Your task to perform on an android device: uninstall "Fetch Rewards" Image 0: 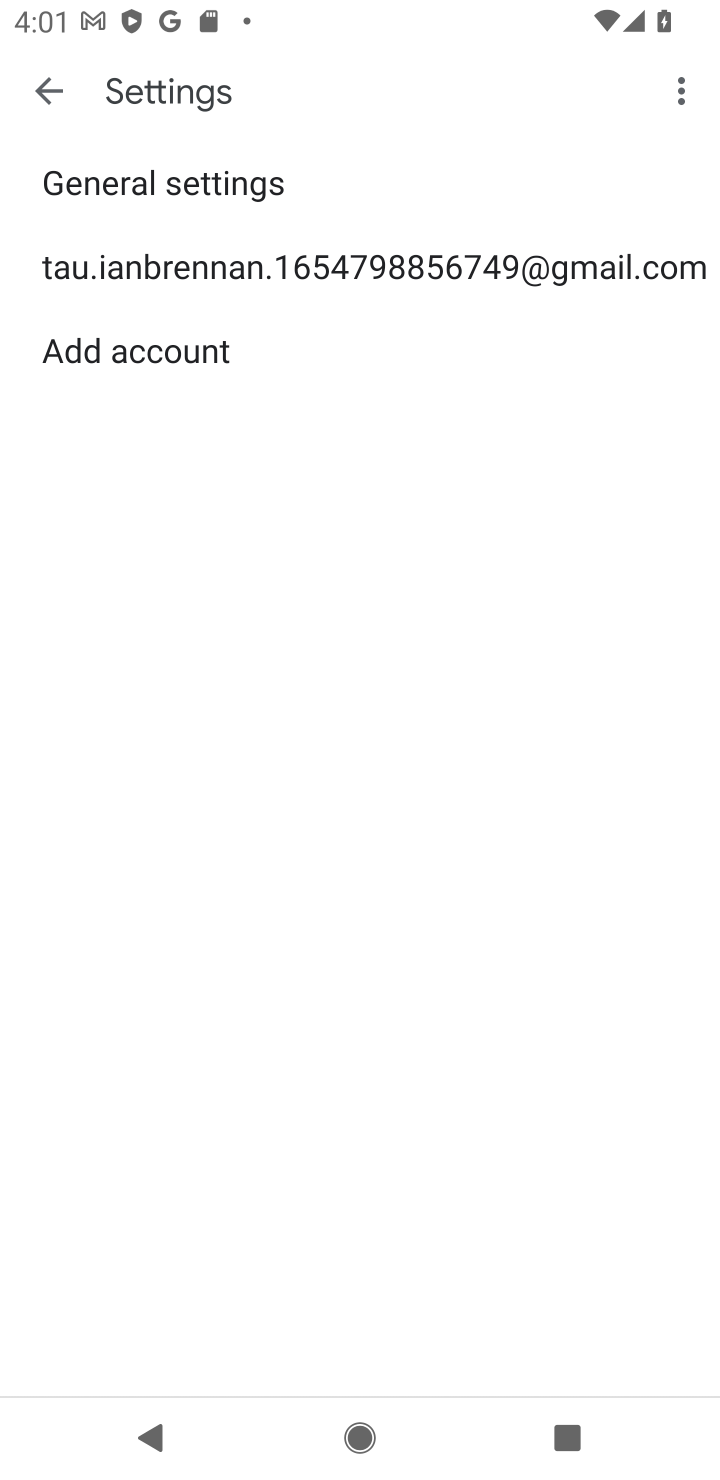
Step 0: press home button
Your task to perform on an android device: uninstall "Fetch Rewards" Image 1: 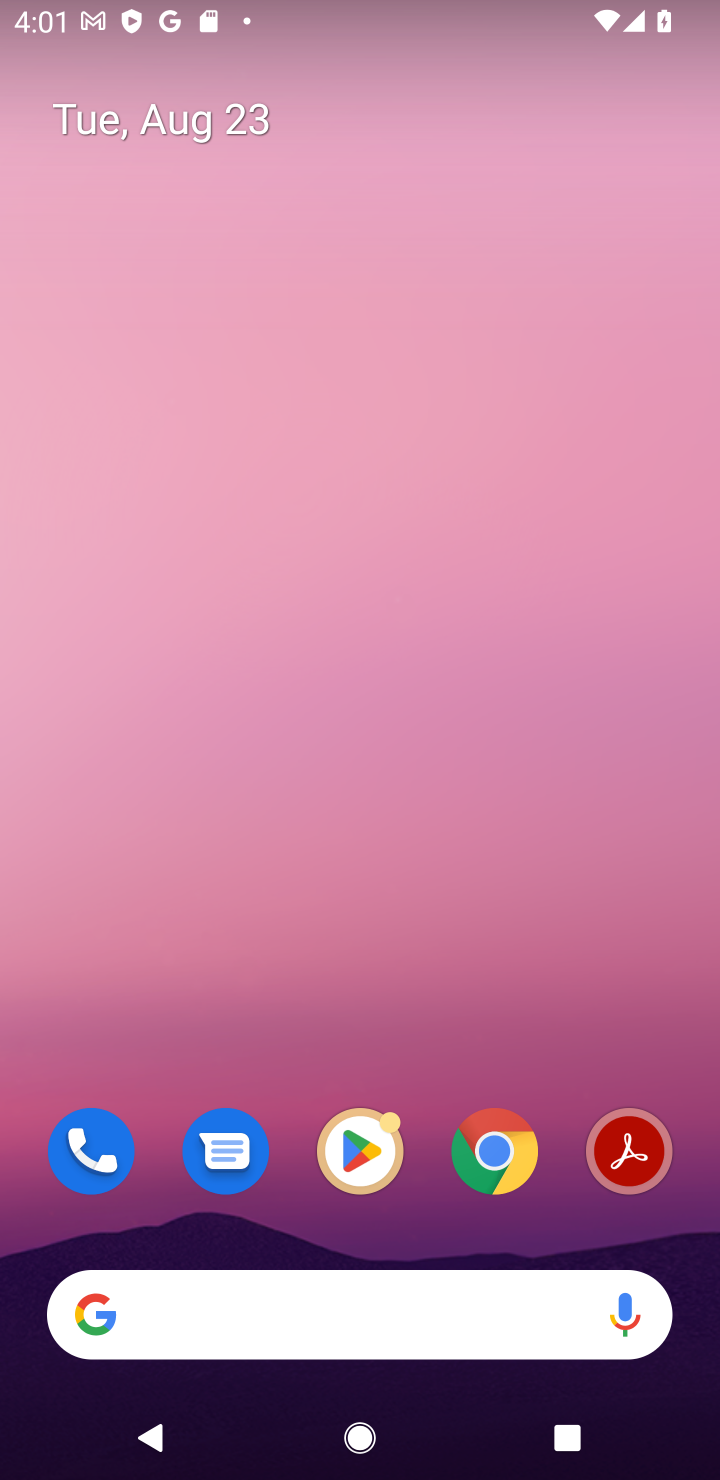
Step 1: click (358, 1144)
Your task to perform on an android device: uninstall "Fetch Rewards" Image 2: 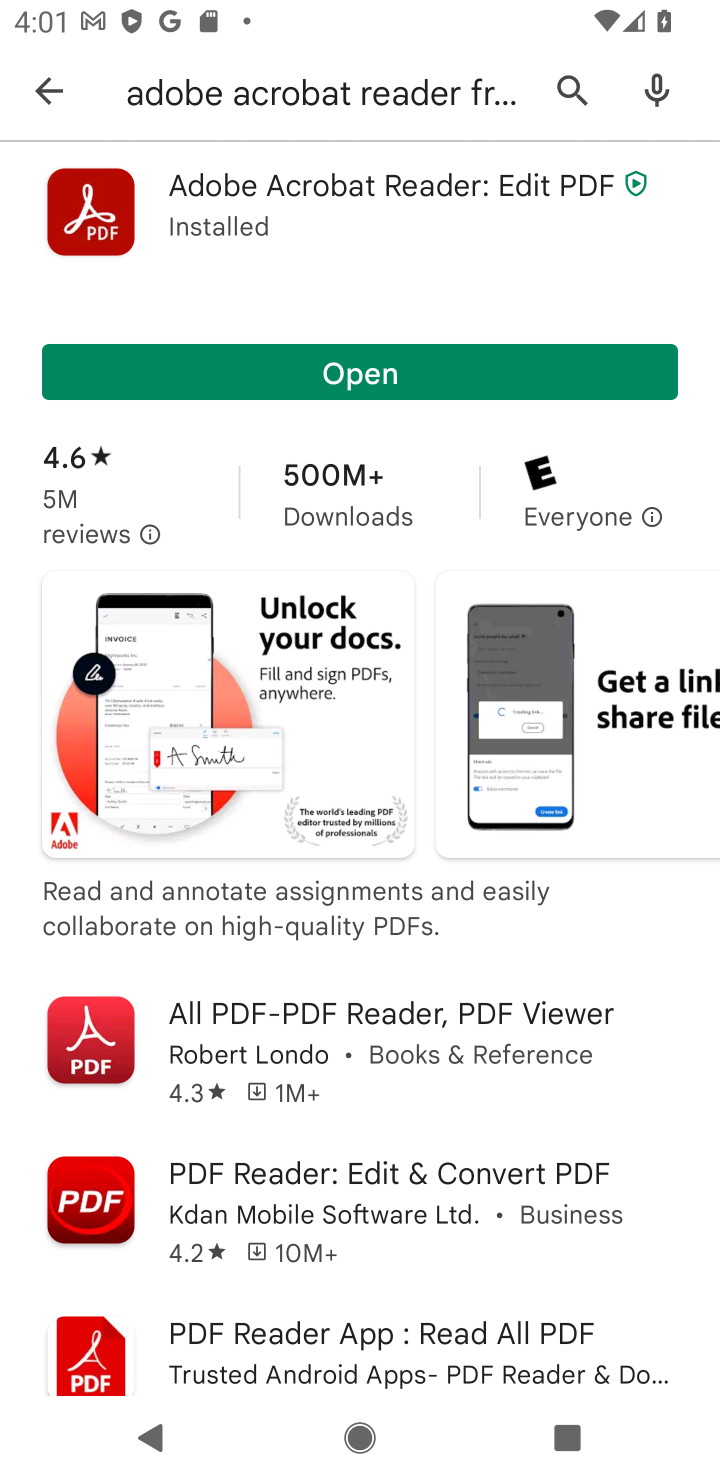
Step 2: click (562, 93)
Your task to perform on an android device: uninstall "Fetch Rewards" Image 3: 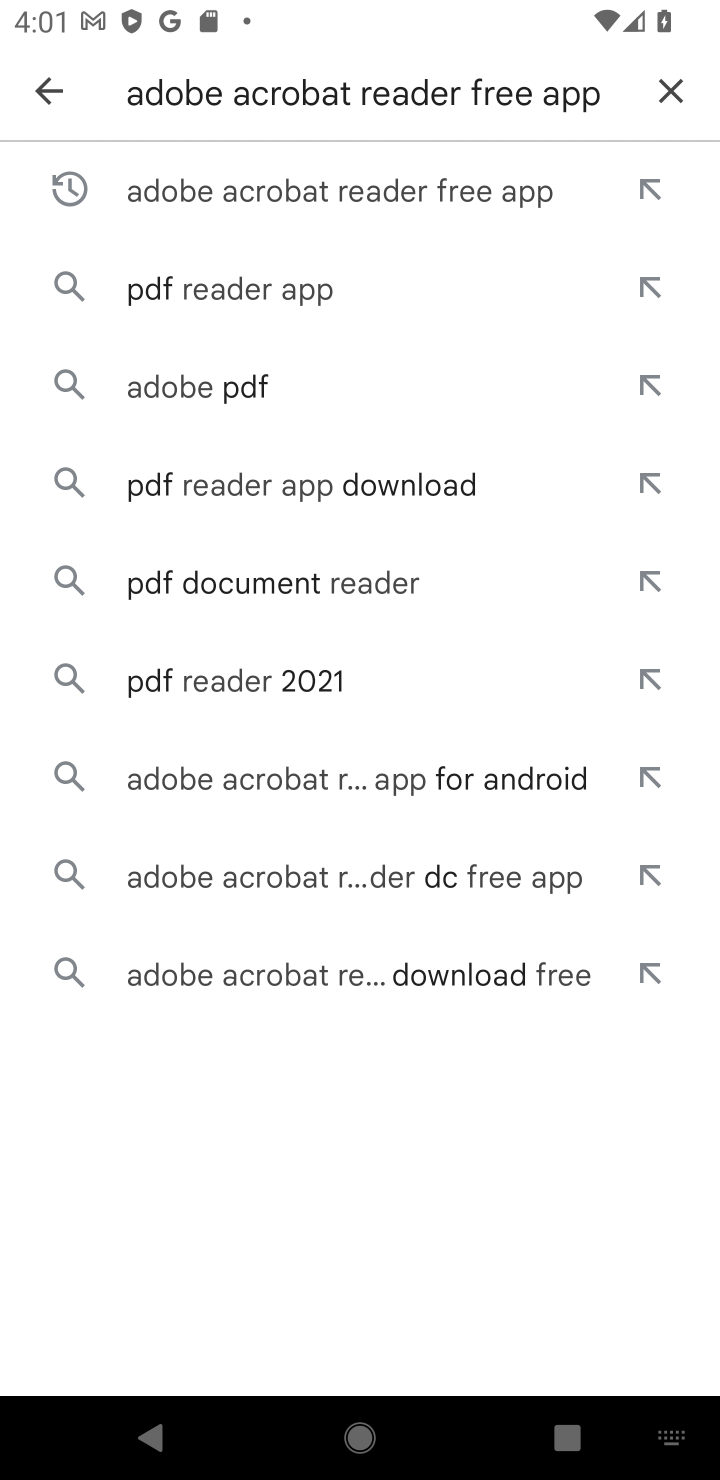
Step 3: click (671, 89)
Your task to perform on an android device: uninstall "Fetch Rewards" Image 4: 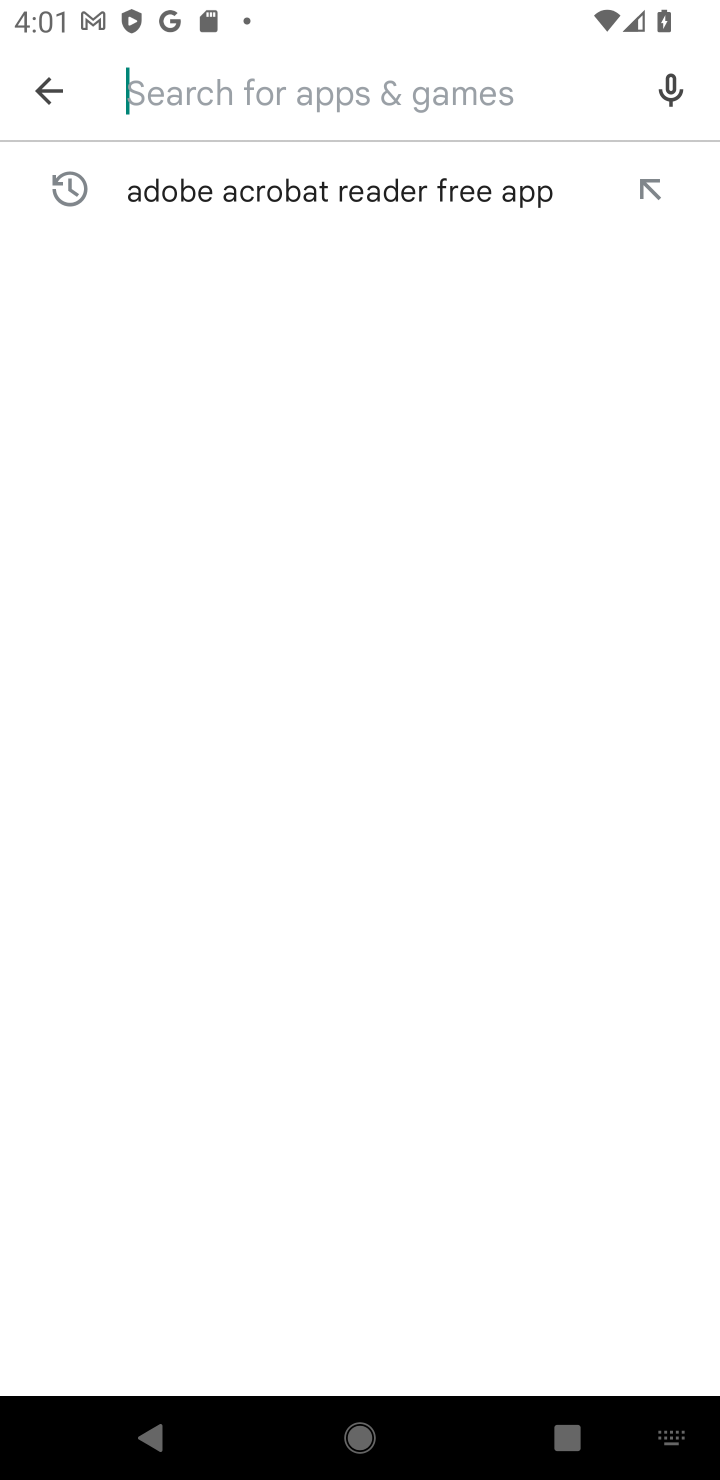
Step 4: type "Fetch Rewards"
Your task to perform on an android device: uninstall "Fetch Rewards" Image 5: 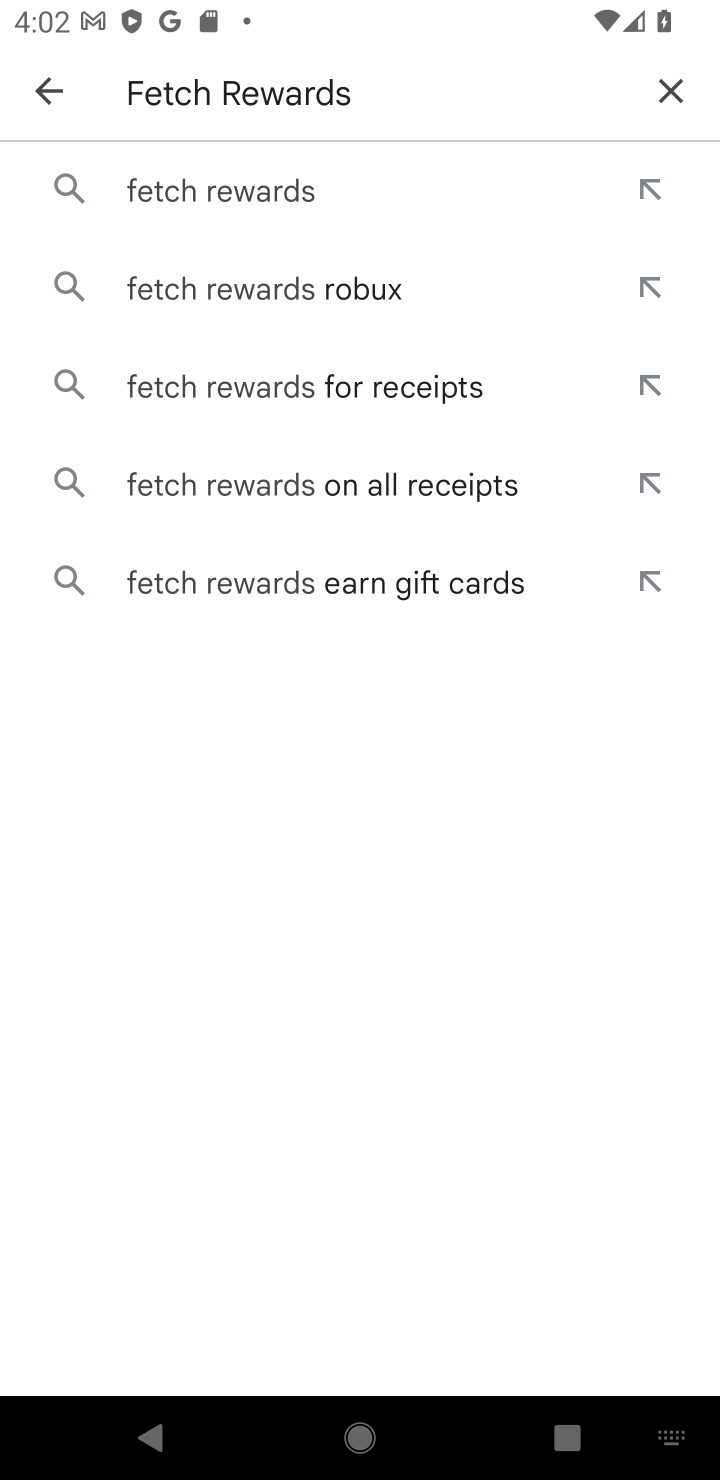
Step 5: click (323, 190)
Your task to perform on an android device: uninstall "Fetch Rewards" Image 6: 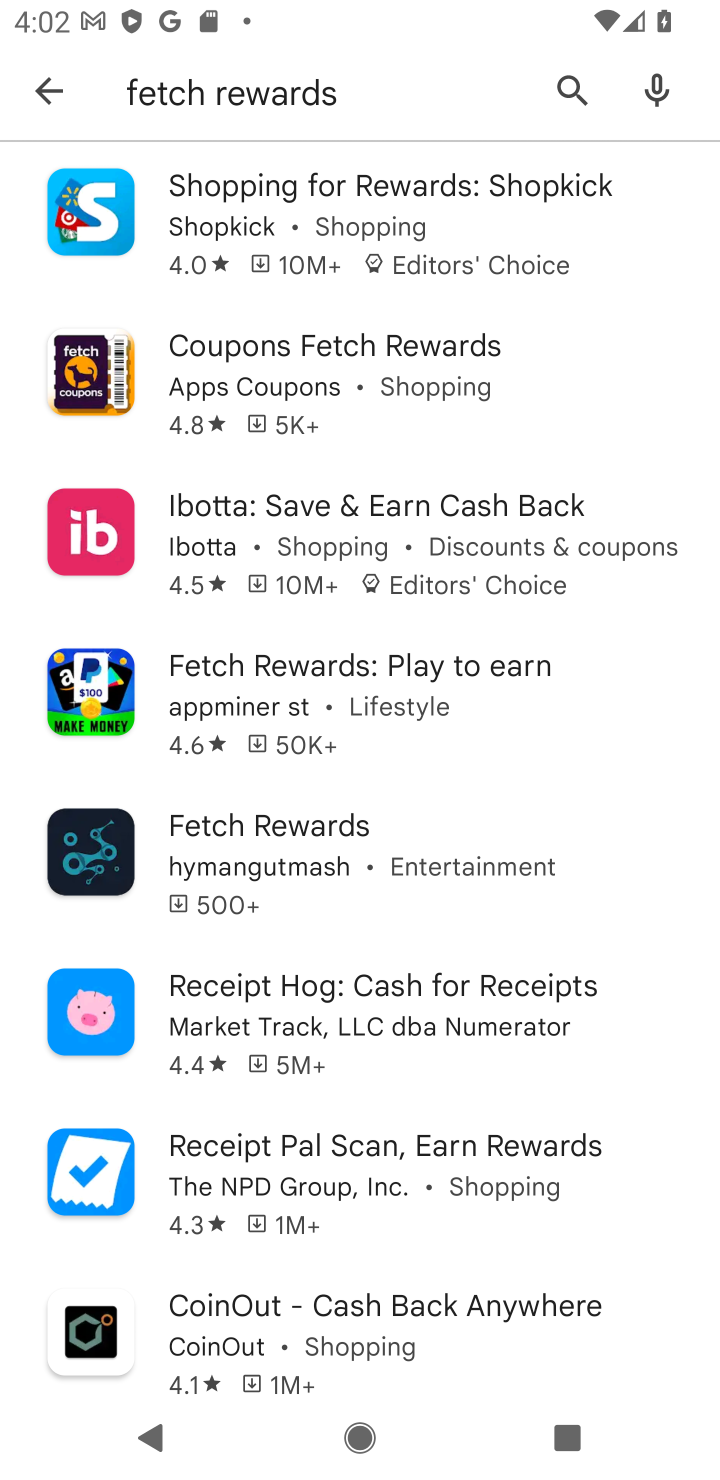
Step 6: task complete